Your task to perform on an android device: Search for Italian restaurants on Maps Image 0: 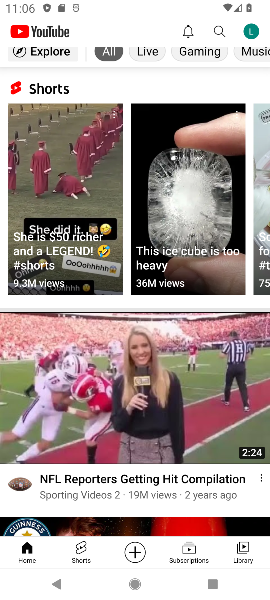
Step 0: press back button
Your task to perform on an android device: Search for Italian restaurants on Maps Image 1: 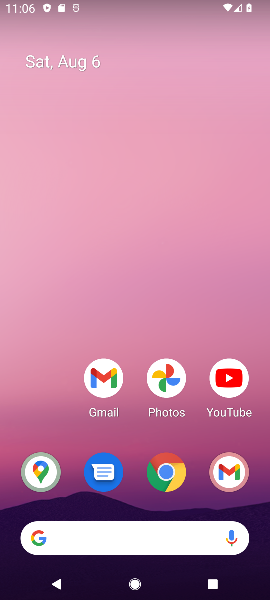
Step 1: drag from (121, 428) to (98, 286)
Your task to perform on an android device: Search for Italian restaurants on Maps Image 2: 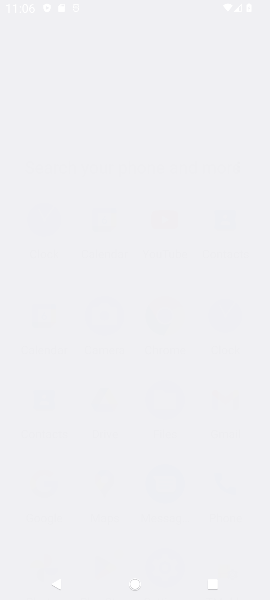
Step 2: drag from (216, 409) to (175, 145)
Your task to perform on an android device: Search for Italian restaurants on Maps Image 3: 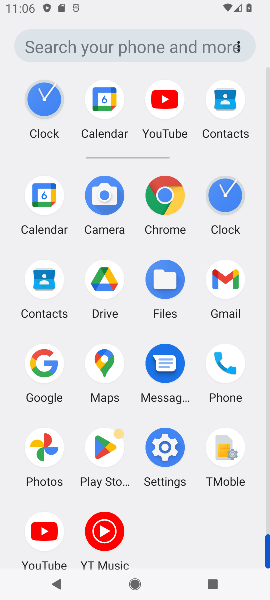
Step 3: click (100, 362)
Your task to perform on an android device: Search for Italian restaurants on Maps Image 4: 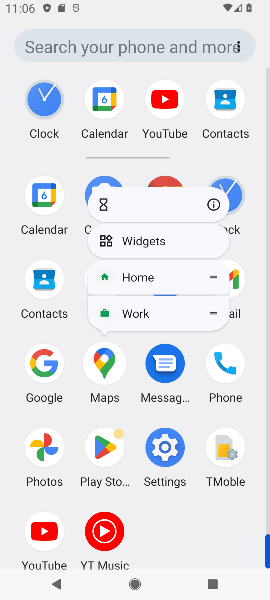
Step 4: click (101, 362)
Your task to perform on an android device: Search for Italian restaurants on Maps Image 5: 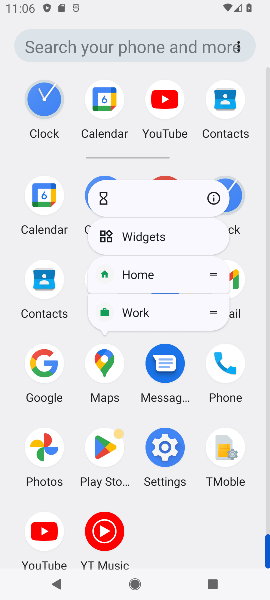
Step 5: click (101, 362)
Your task to perform on an android device: Search for Italian restaurants on Maps Image 6: 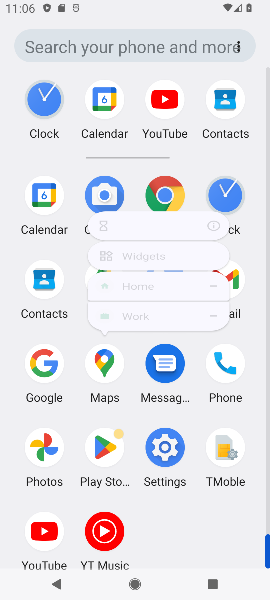
Step 6: click (103, 365)
Your task to perform on an android device: Search for Italian restaurants on Maps Image 7: 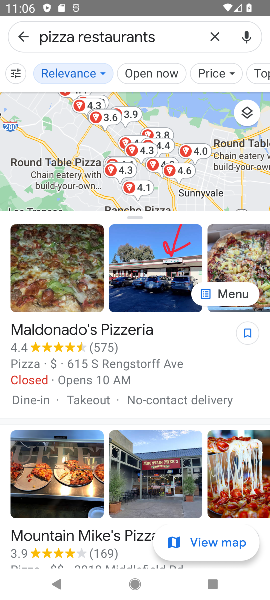
Step 7: click (205, 29)
Your task to perform on an android device: Search for Italian restaurants on Maps Image 8: 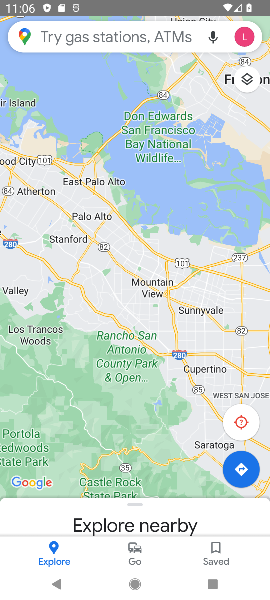
Step 8: click (56, 43)
Your task to perform on an android device: Search for Italian restaurants on Maps Image 9: 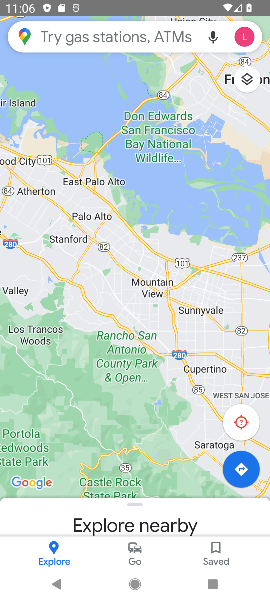
Step 9: click (56, 43)
Your task to perform on an android device: Search for Italian restaurants on Maps Image 10: 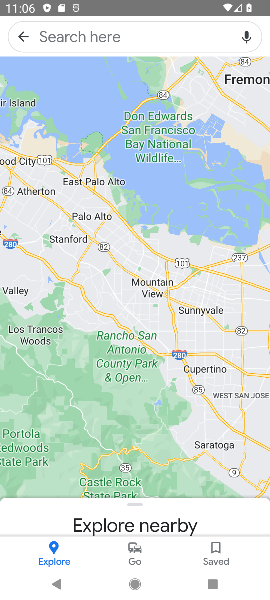
Step 10: click (56, 43)
Your task to perform on an android device: Search for Italian restaurants on Maps Image 11: 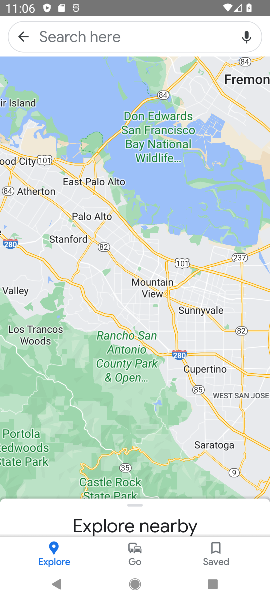
Step 11: click (54, 42)
Your task to perform on an android device: Search for Italian restaurants on Maps Image 12: 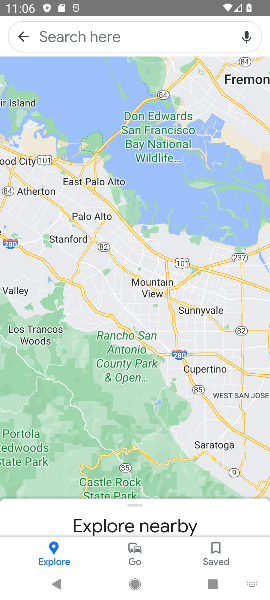
Step 12: click (54, 38)
Your task to perform on an android device: Search for Italian restaurants on Maps Image 13: 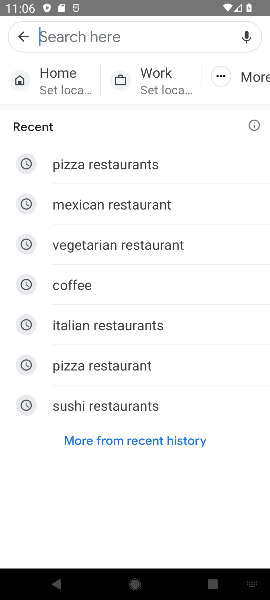
Step 13: click (108, 324)
Your task to perform on an android device: Search for Italian restaurants on Maps Image 14: 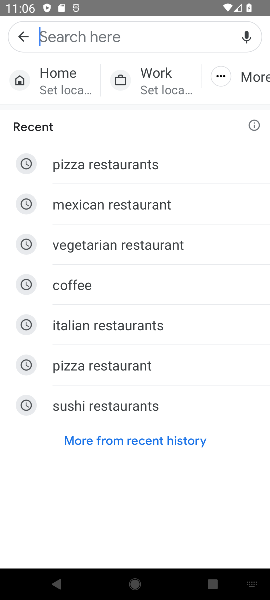
Step 14: click (108, 324)
Your task to perform on an android device: Search for Italian restaurants on Maps Image 15: 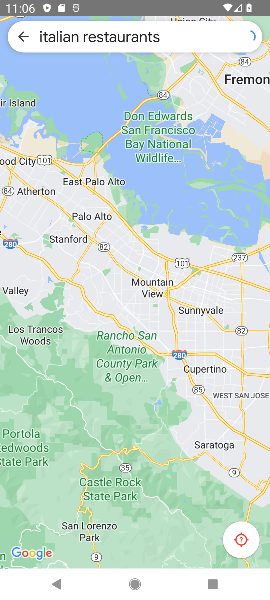
Step 15: click (121, 318)
Your task to perform on an android device: Search for Italian restaurants on Maps Image 16: 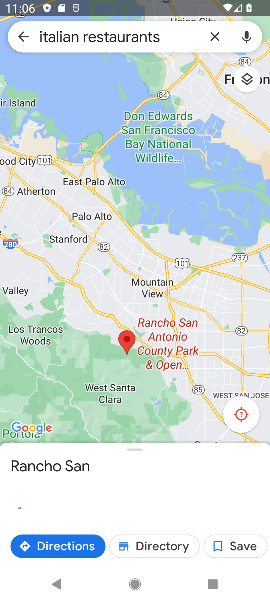
Step 16: task complete